Your task to perform on an android device: change your default location settings in chrome Image 0: 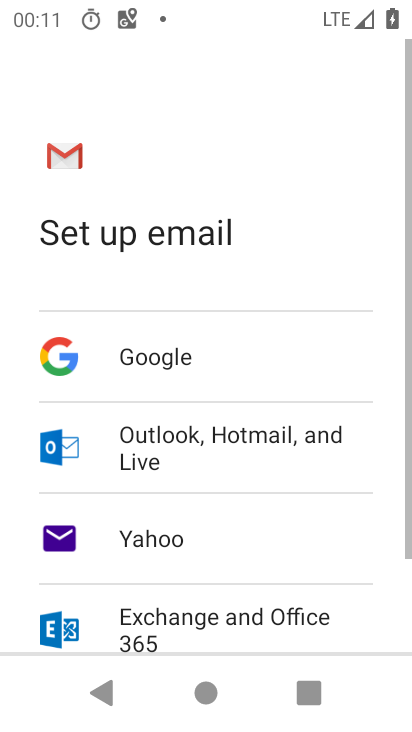
Step 0: press home button
Your task to perform on an android device: change your default location settings in chrome Image 1: 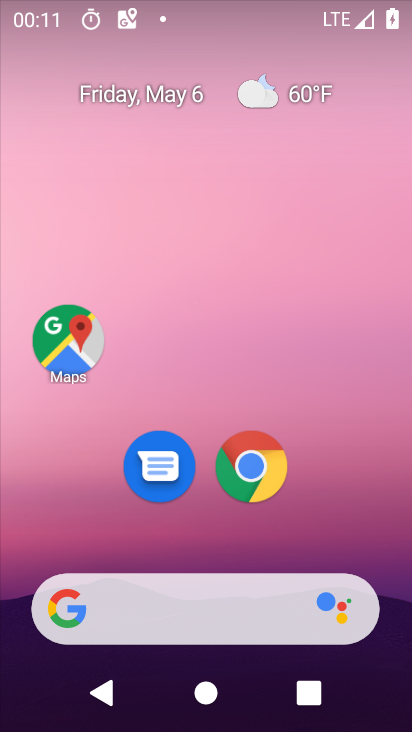
Step 1: click (257, 455)
Your task to perform on an android device: change your default location settings in chrome Image 2: 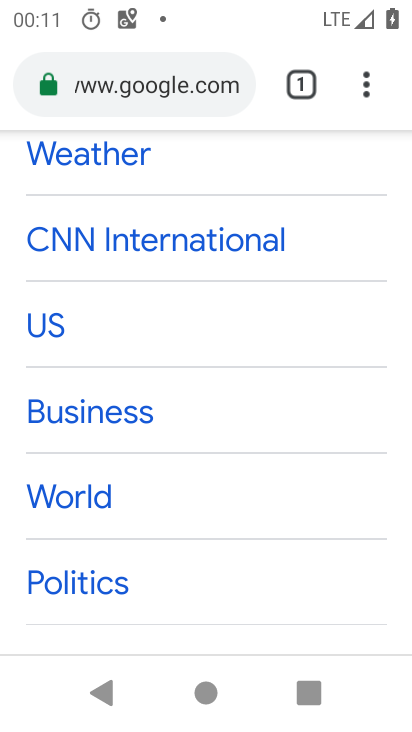
Step 2: click (373, 72)
Your task to perform on an android device: change your default location settings in chrome Image 3: 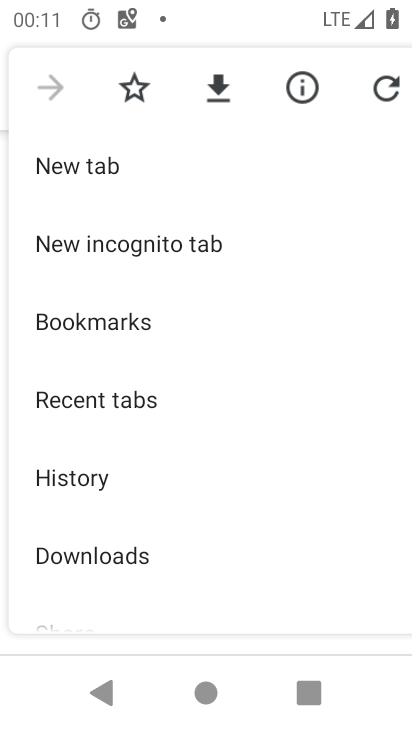
Step 3: drag from (89, 591) to (122, 211)
Your task to perform on an android device: change your default location settings in chrome Image 4: 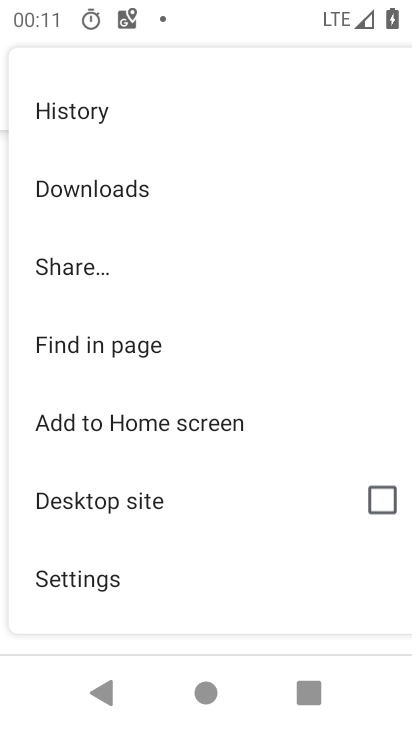
Step 4: click (124, 576)
Your task to perform on an android device: change your default location settings in chrome Image 5: 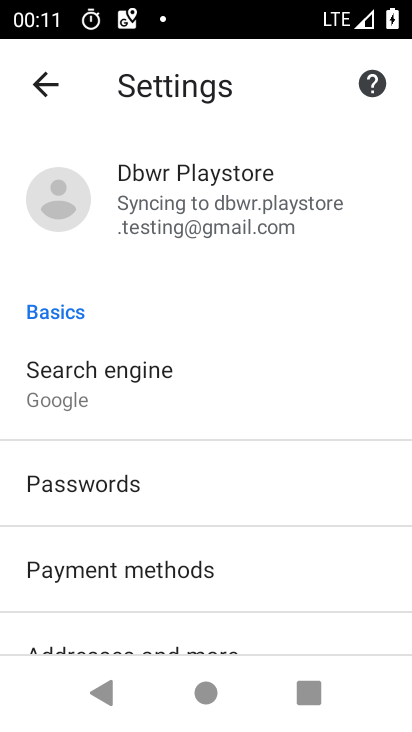
Step 5: drag from (176, 637) to (202, 260)
Your task to perform on an android device: change your default location settings in chrome Image 6: 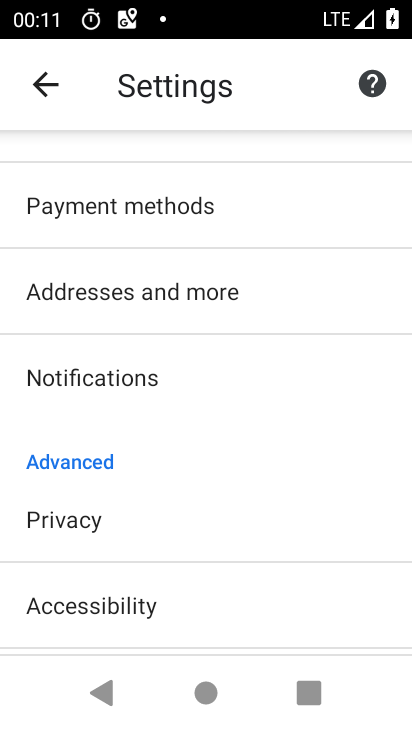
Step 6: drag from (180, 623) to (178, 280)
Your task to perform on an android device: change your default location settings in chrome Image 7: 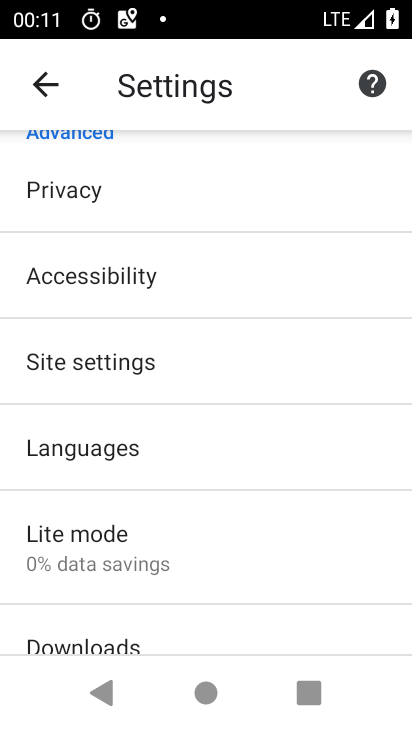
Step 7: drag from (148, 619) to (163, 322)
Your task to perform on an android device: change your default location settings in chrome Image 8: 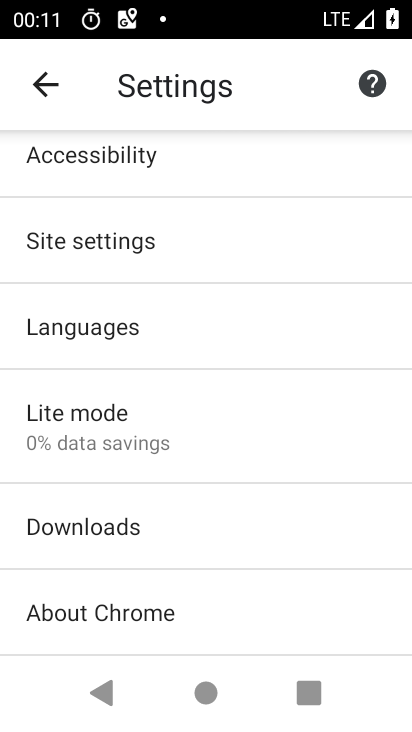
Step 8: click (96, 242)
Your task to perform on an android device: change your default location settings in chrome Image 9: 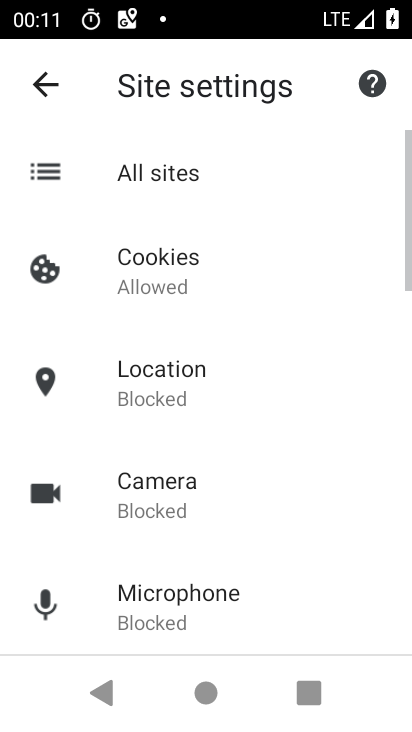
Step 9: click (154, 381)
Your task to perform on an android device: change your default location settings in chrome Image 10: 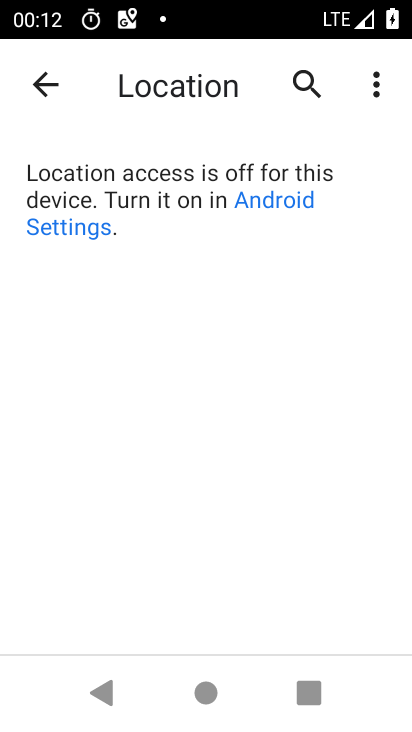
Step 10: click (68, 227)
Your task to perform on an android device: change your default location settings in chrome Image 11: 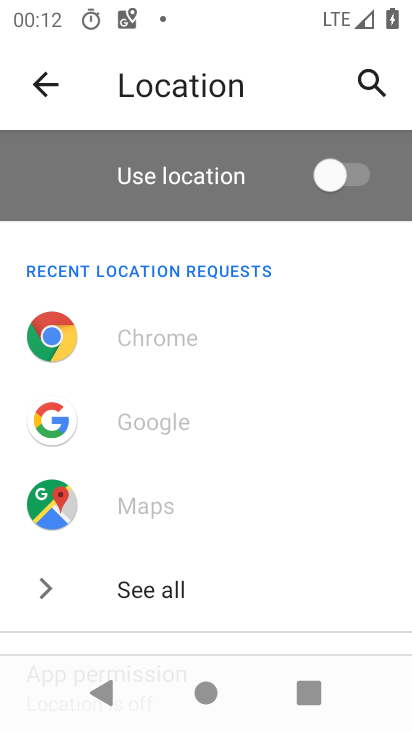
Step 11: click (358, 168)
Your task to perform on an android device: change your default location settings in chrome Image 12: 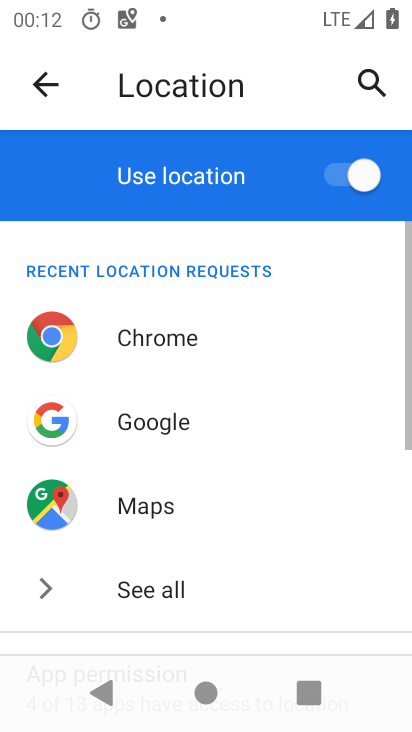
Step 12: task complete